Your task to perform on an android device: change the clock style Image 0: 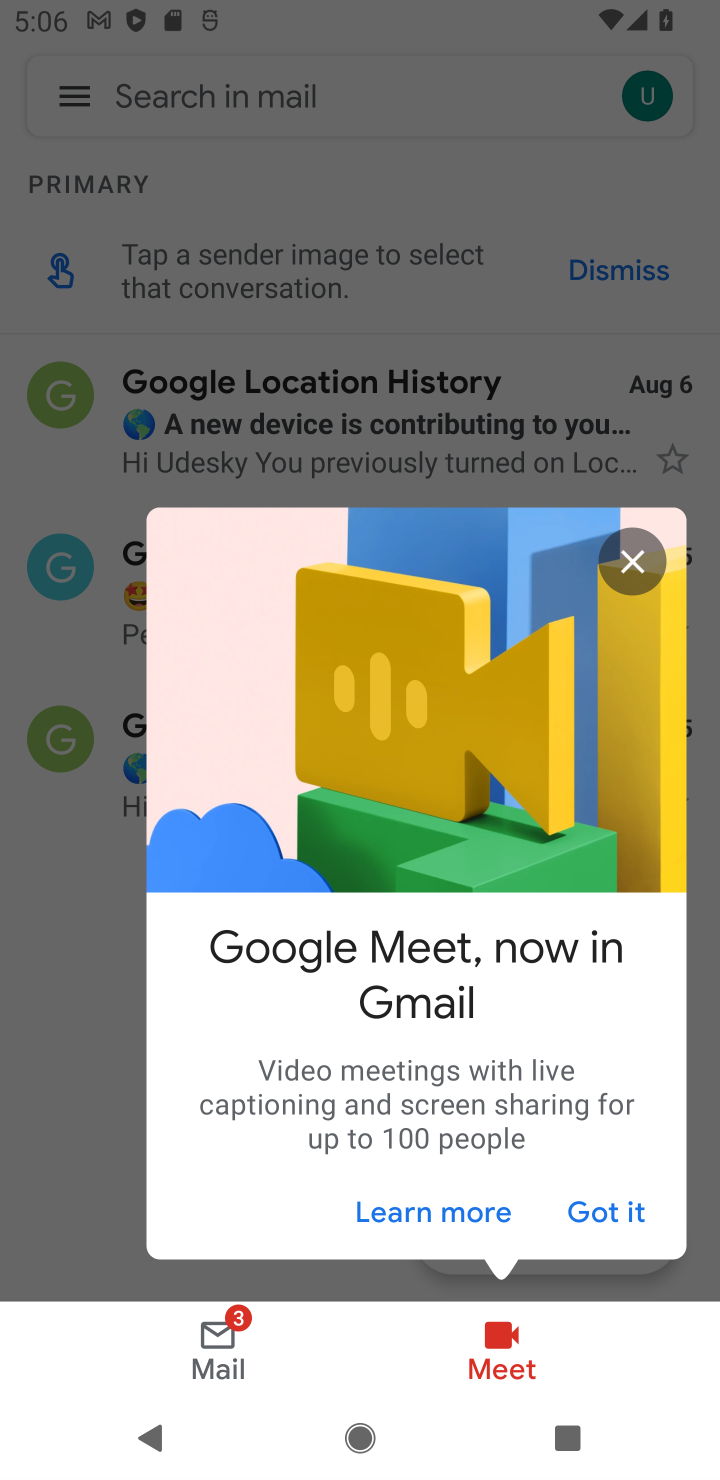
Step 0: press home button
Your task to perform on an android device: change the clock style Image 1: 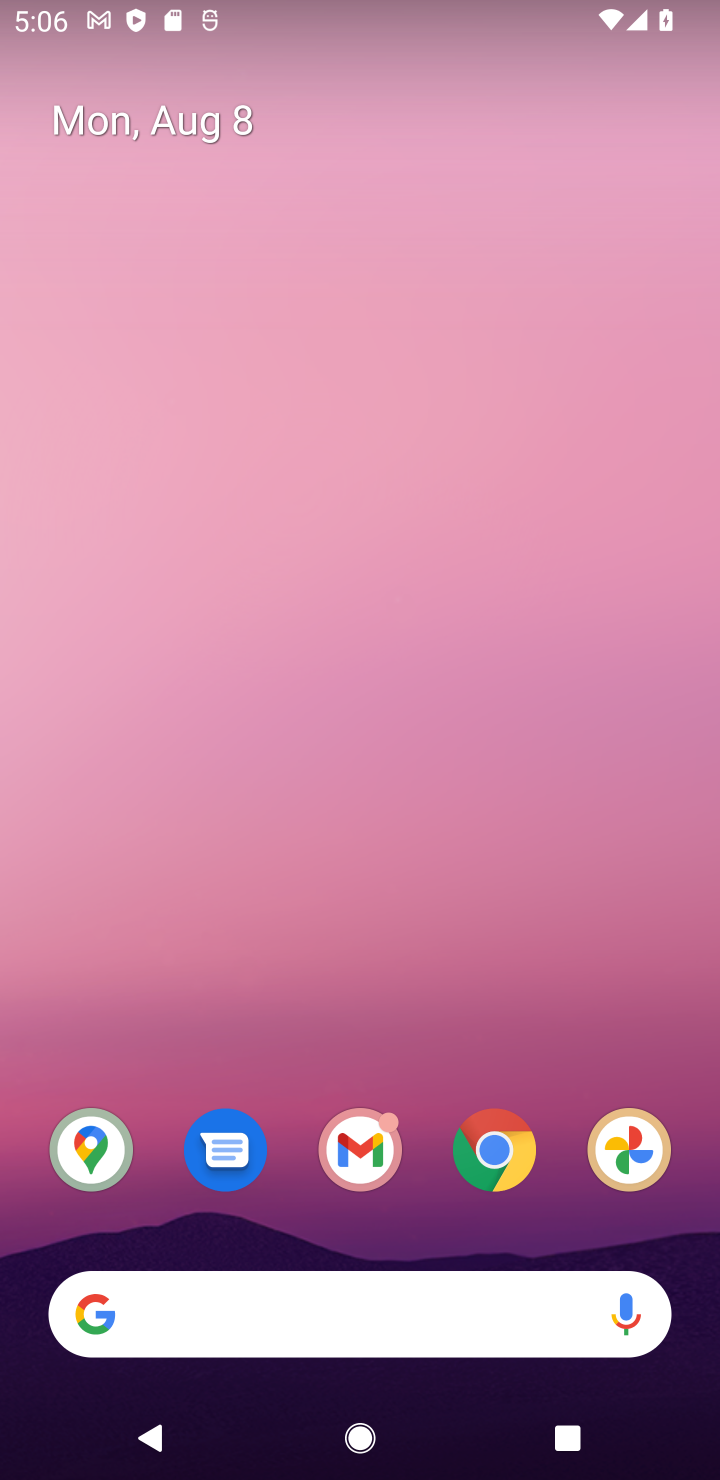
Step 1: drag from (444, 1231) to (480, 271)
Your task to perform on an android device: change the clock style Image 2: 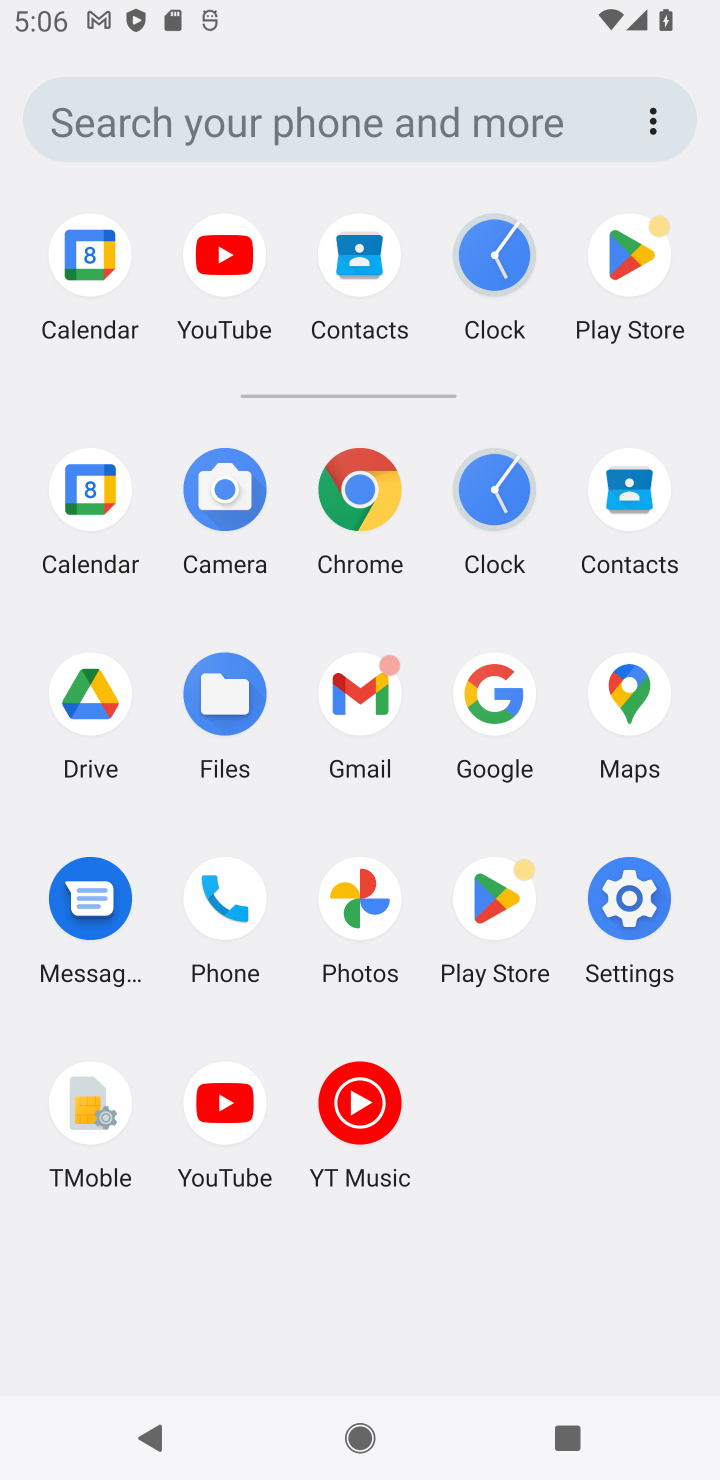
Step 2: click (473, 332)
Your task to perform on an android device: change the clock style Image 3: 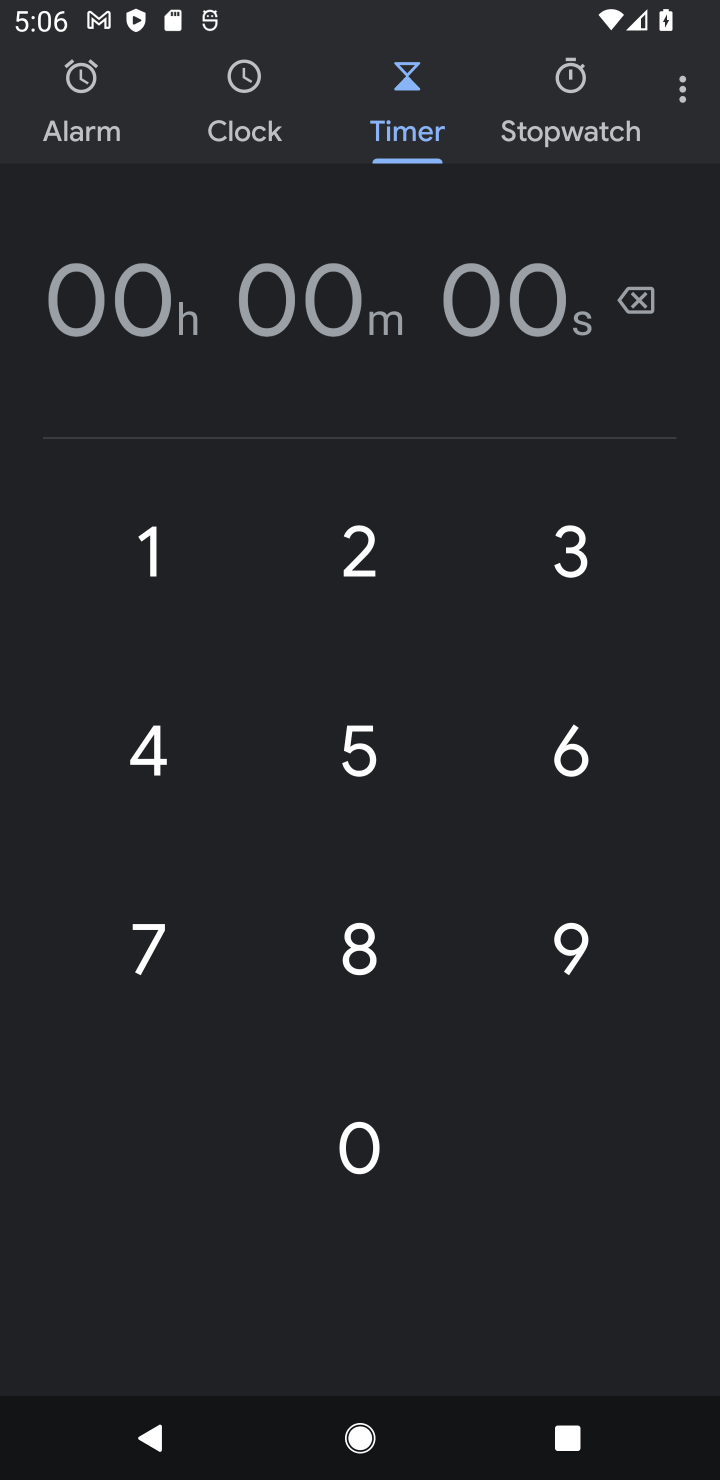
Step 3: task complete